Your task to perform on an android device: Open network settings Image 0: 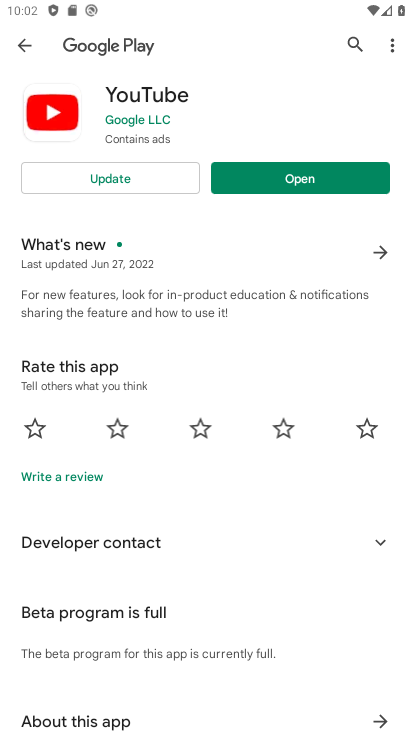
Step 0: press home button
Your task to perform on an android device: Open network settings Image 1: 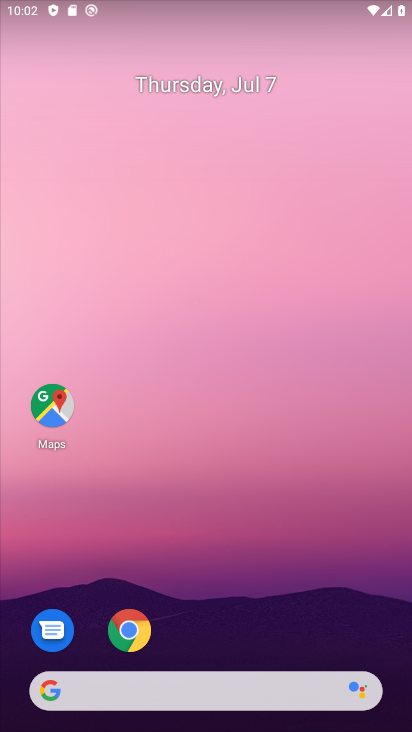
Step 1: drag from (94, 553) to (168, 238)
Your task to perform on an android device: Open network settings Image 2: 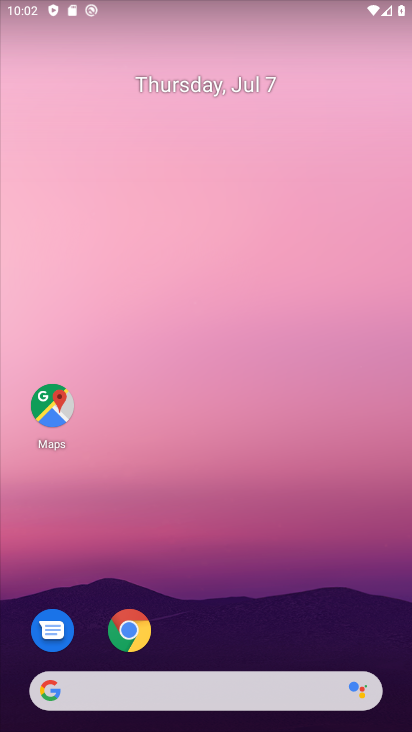
Step 2: drag from (28, 656) to (192, 38)
Your task to perform on an android device: Open network settings Image 3: 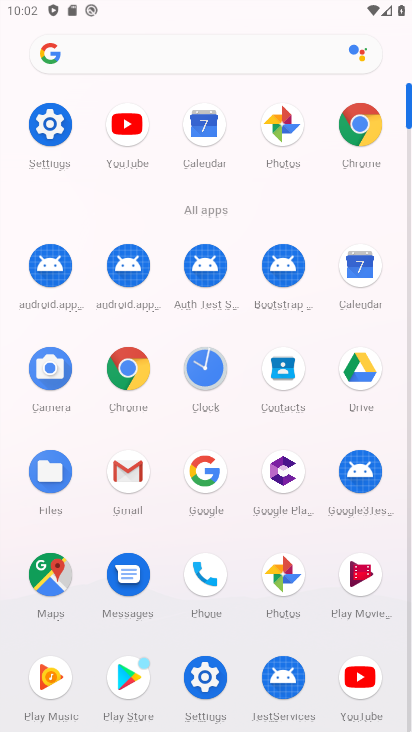
Step 3: click (202, 686)
Your task to perform on an android device: Open network settings Image 4: 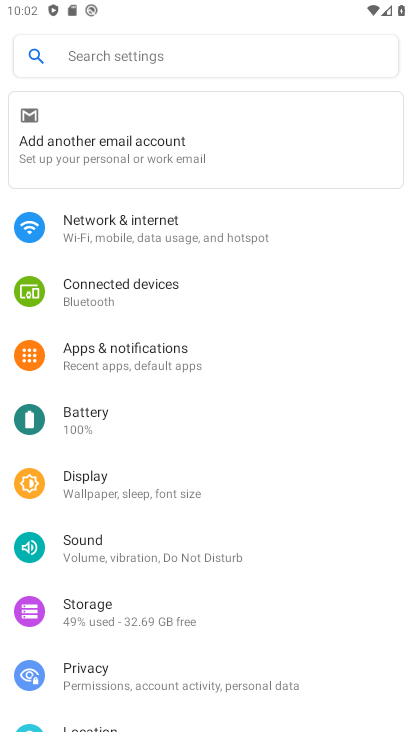
Step 4: click (134, 222)
Your task to perform on an android device: Open network settings Image 5: 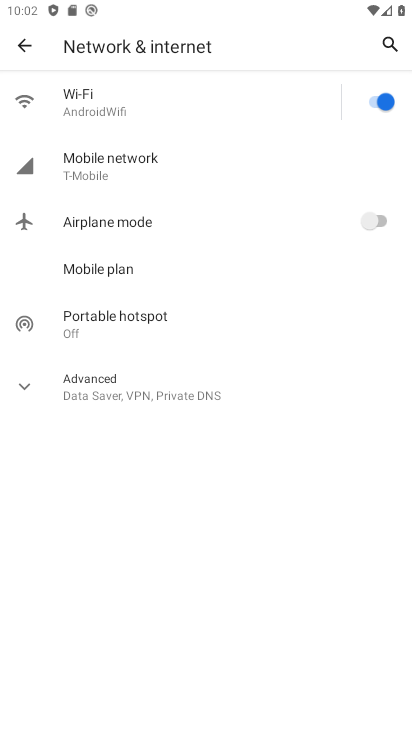
Step 5: task complete